Your task to perform on an android device: change your default location settings in chrome Image 0: 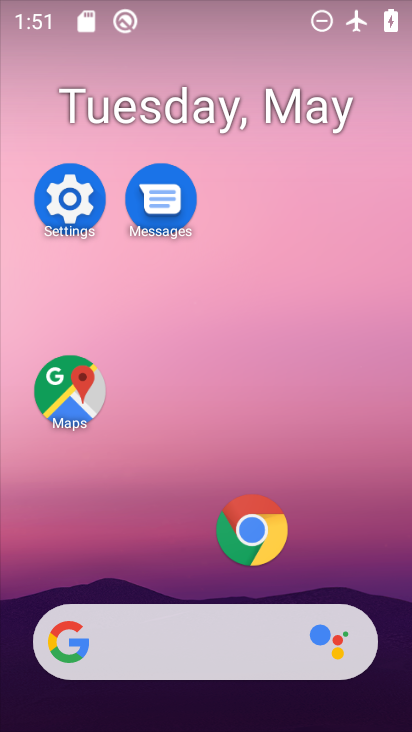
Step 0: click (262, 518)
Your task to perform on an android device: change your default location settings in chrome Image 1: 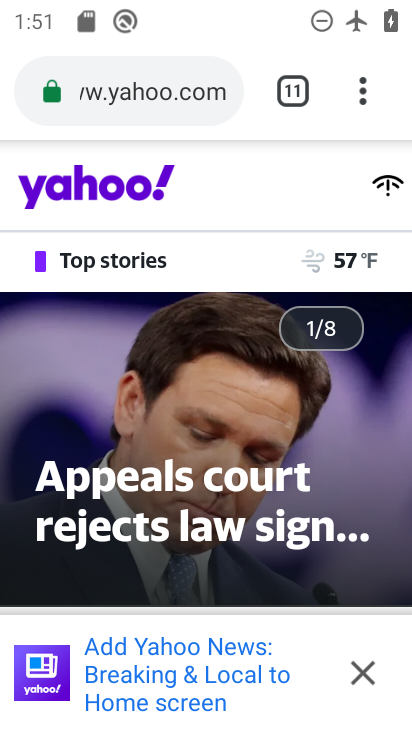
Step 1: drag from (335, 3) to (363, 560)
Your task to perform on an android device: change your default location settings in chrome Image 2: 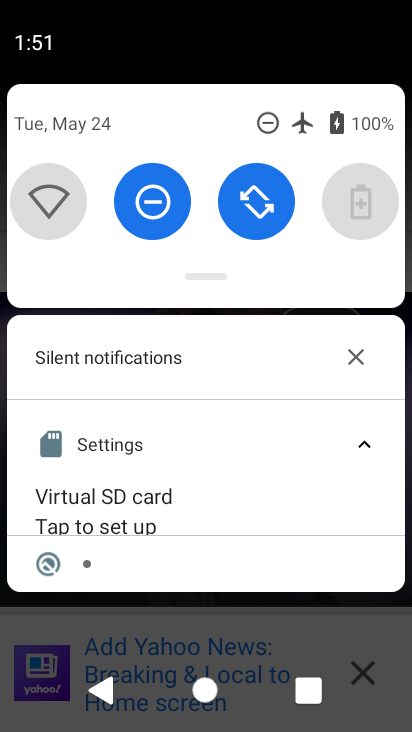
Step 2: click (208, 271)
Your task to perform on an android device: change your default location settings in chrome Image 3: 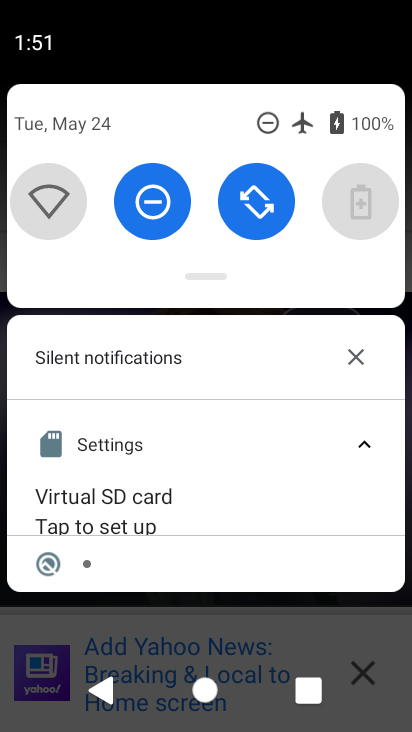
Step 3: drag from (208, 271) to (191, 540)
Your task to perform on an android device: change your default location settings in chrome Image 4: 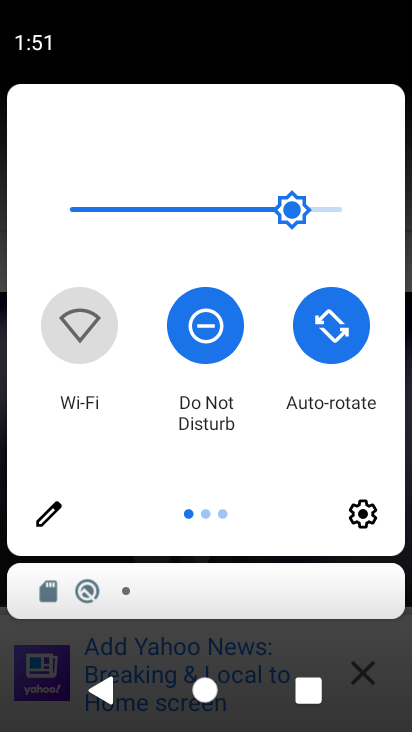
Step 4: drag from (283, 398) to (19, 354)
Your task to perform on an android device: change your default location settings in chrome Image 5: 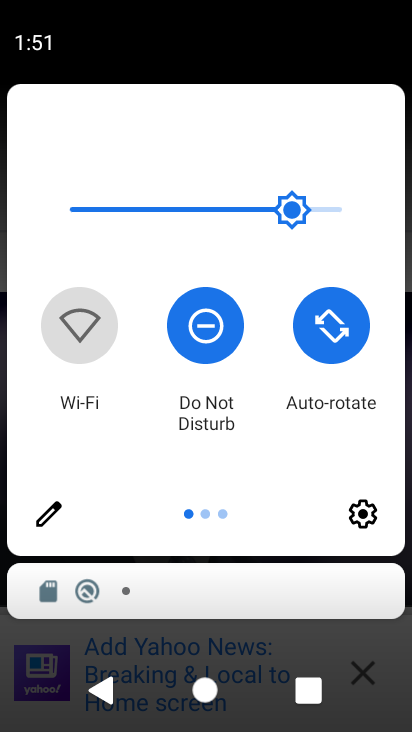
Step 5: drag from (342, 434) to (14, 358)
Your task to perform on an android device: change your default location settings in chrome Image 6: 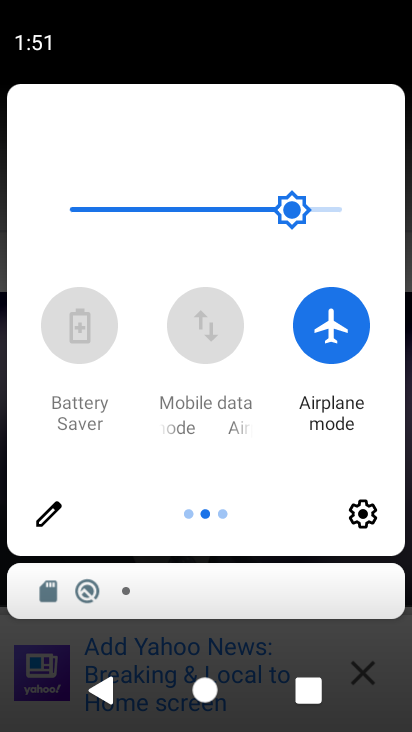
Step 6: click (355, 330)
Your task to perform on an android device: change your default location settings in chrome Image 7: 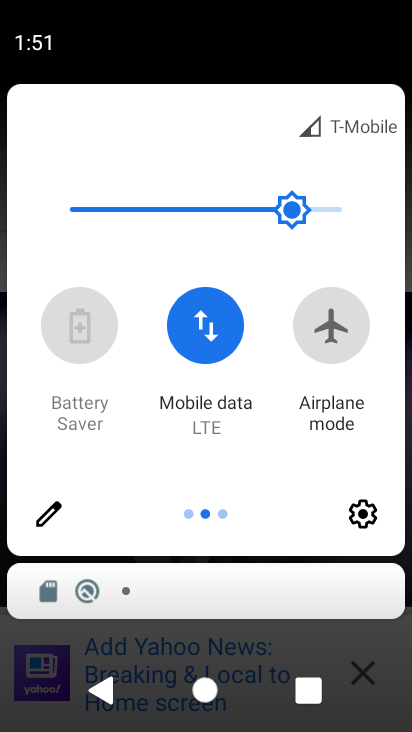
Step 7: task complete